Your task to perform on an android device: find photos in the google photos app Image 0: 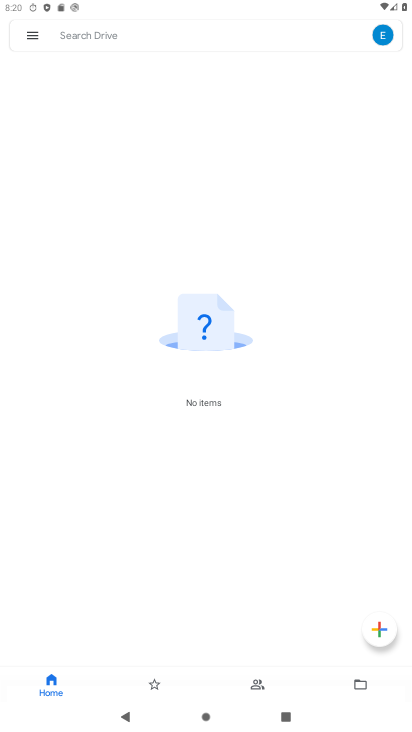
Step 0: press home button
Your task to perform on an android device: find photos in the google photos app Image 1: 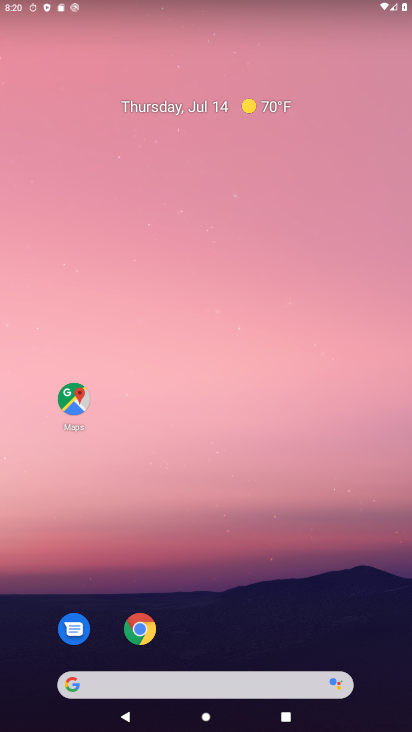
Step 1: drag from (271, 582) to (331, 219)
Your task to perform on an android device: find photos in the google photos app Image 2: 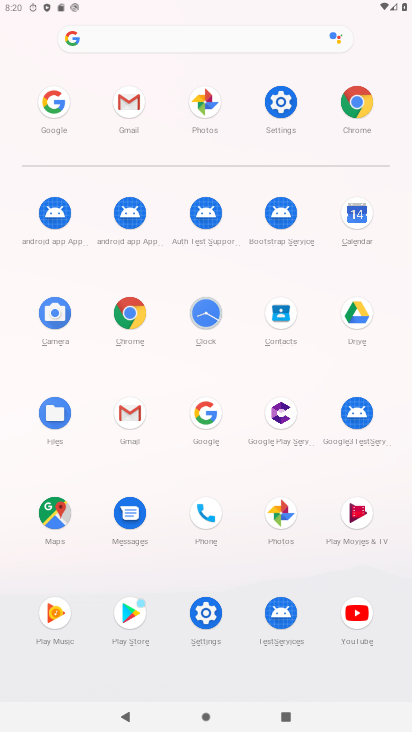
Step 2: click (211, 96)
Your task to perform on an android device: find photos in the google photos app Image 3: 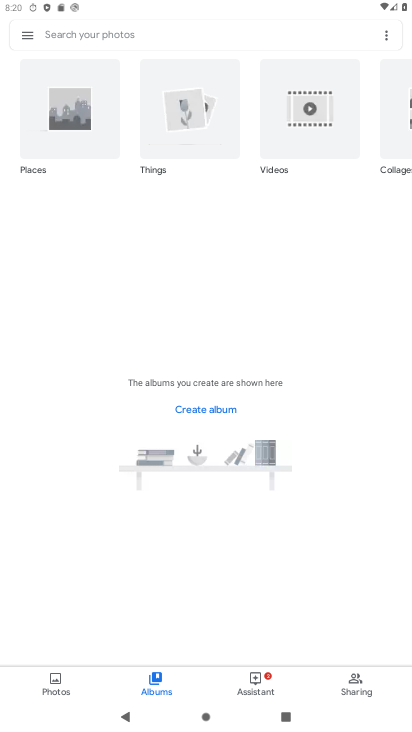
Step 3: task complete